Your task to perform on an android device: check data usage Image 0: 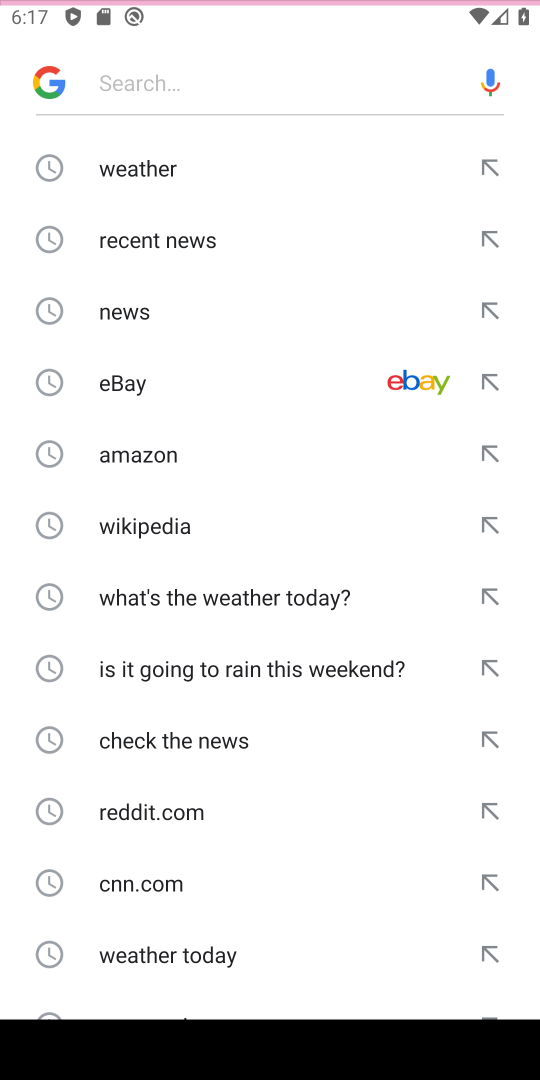
Step 0: press home button
Your task to perform on an android device: check data usage Image 1: 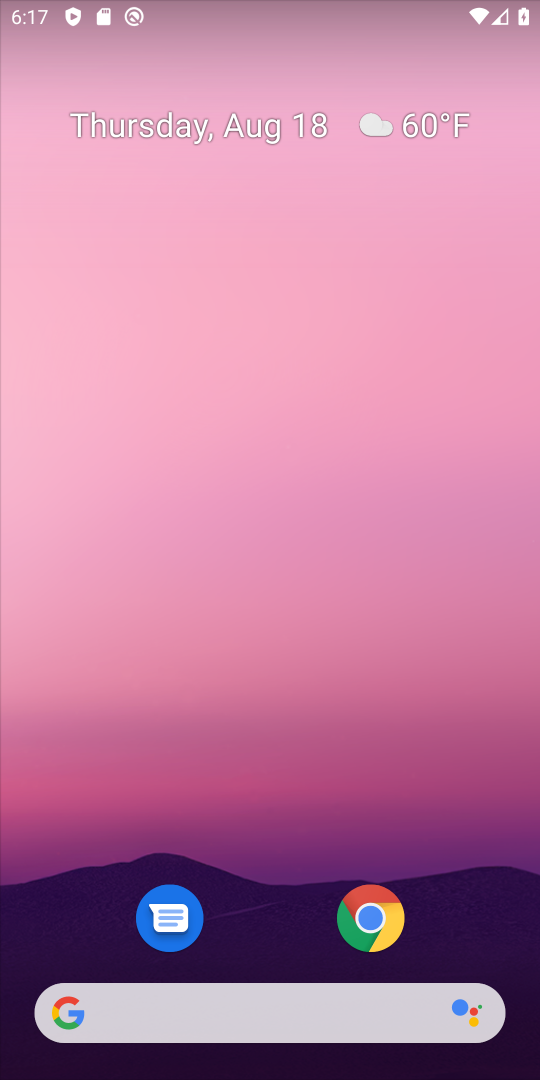
Step 1: drag from (296, 906) to (317, 61)
Your task to perform on an android device: check data usage Image 2: 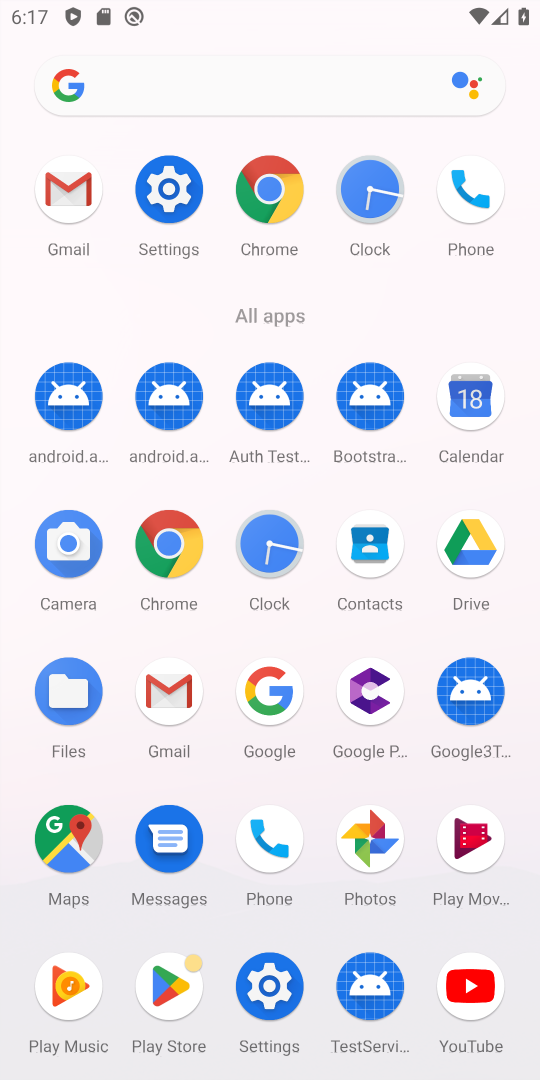
Step 2: click (163, 194)
Your task to perform on an android device: check data usage Image 3: 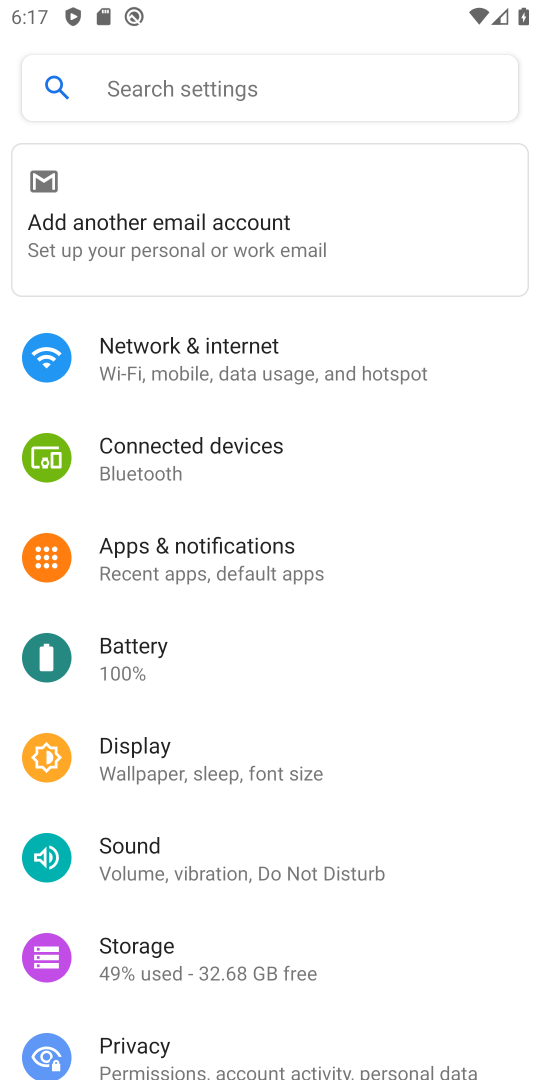
Step 3: click (178, 368)
Your task to perform on an android device: check data usage Image 4: 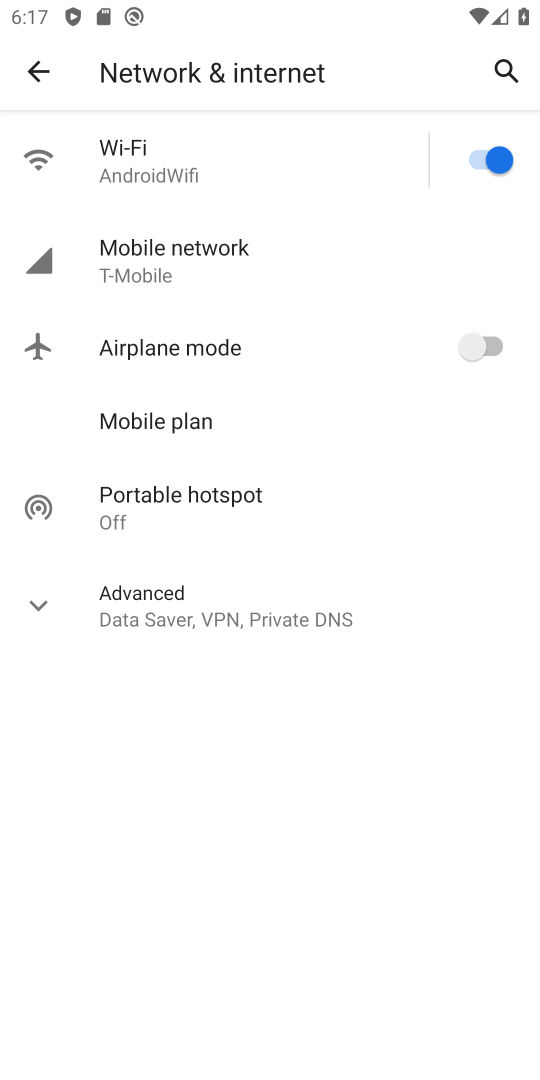
Step 4: click (153, 255)
Your task to perform on an android device: check data usage Image 5: 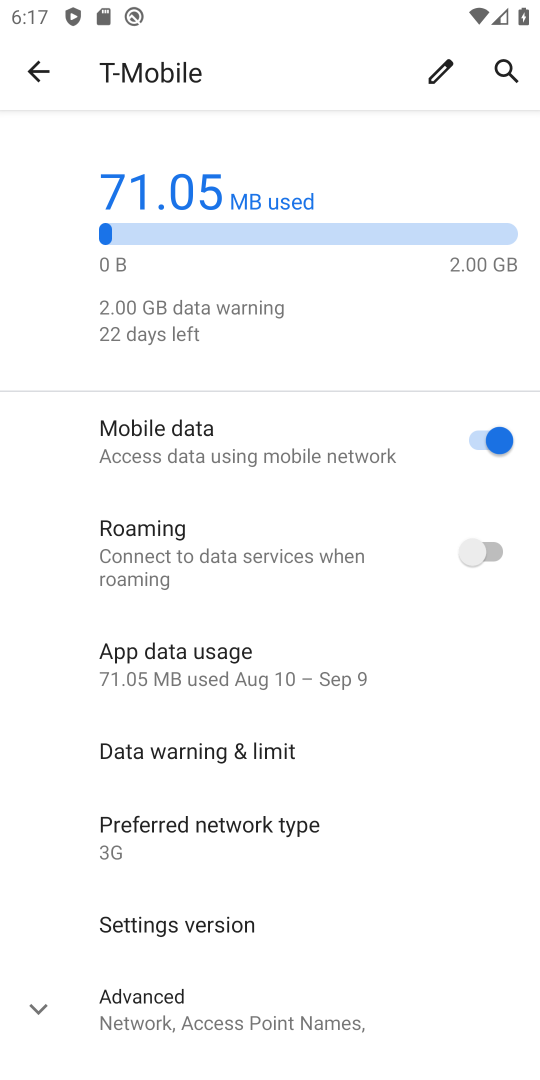
Step 5: click (178, 667)
Your task to perform on an android device: check data usage Image 6: 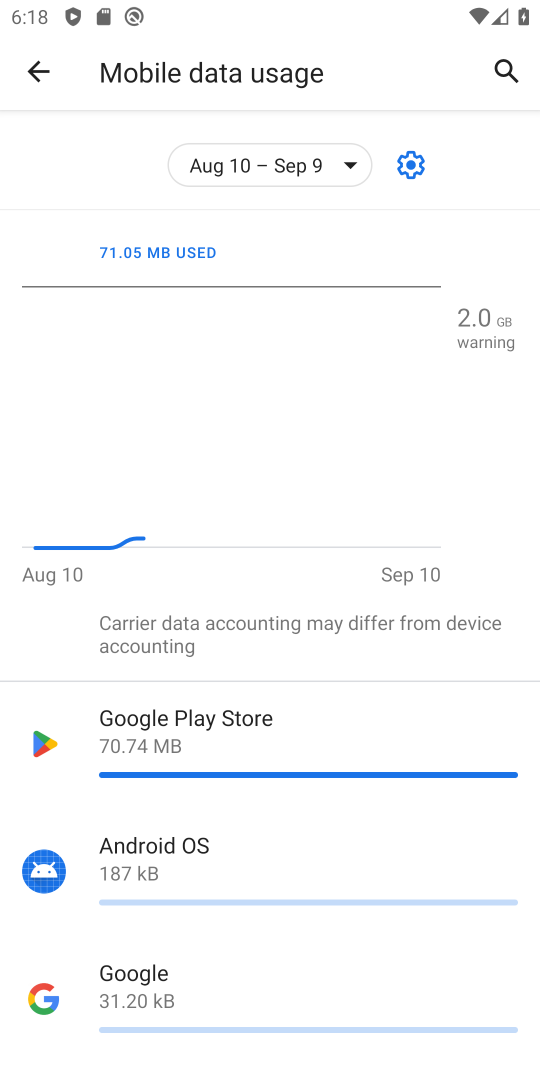
Step 6: task complete